Your task to perform on an android device: refresh tabs in the chrome app Image 0: 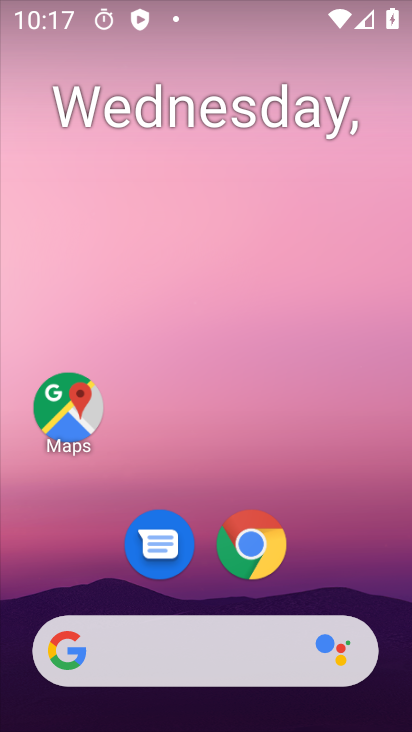
Step 0: drag from (296, 681) to (180, 37)
Your task to perform on an android device: refresh tabs in the chrome app Image 1: 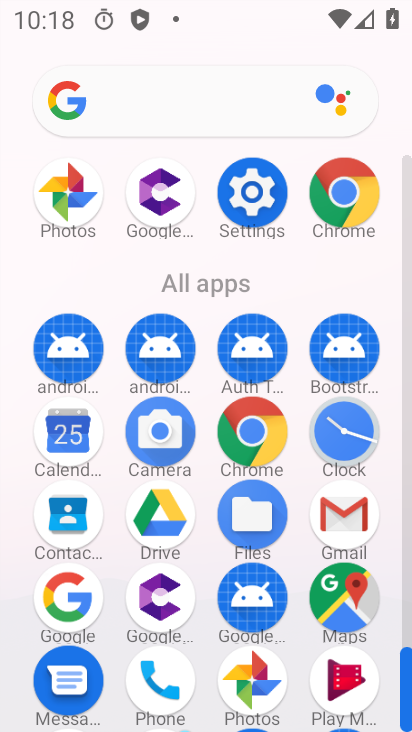
Step 1: click (351, 206)
Your task to perform on an android device: refresh tabs in the chrome app Image 2: 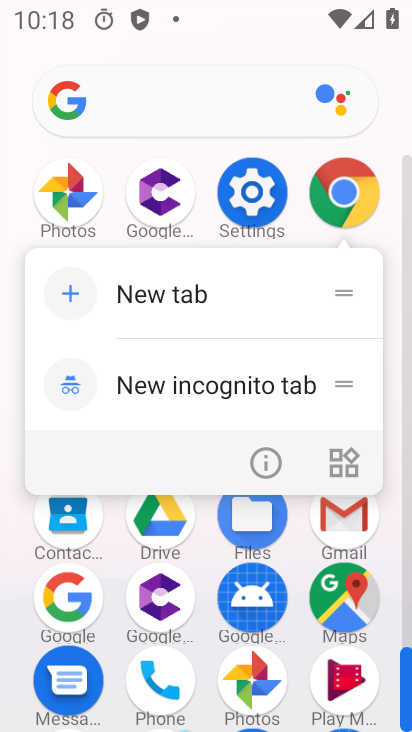
Step 2: click (344, 182)
Your task to perform on an android device: refresh tabs in the chrome app Image 3: 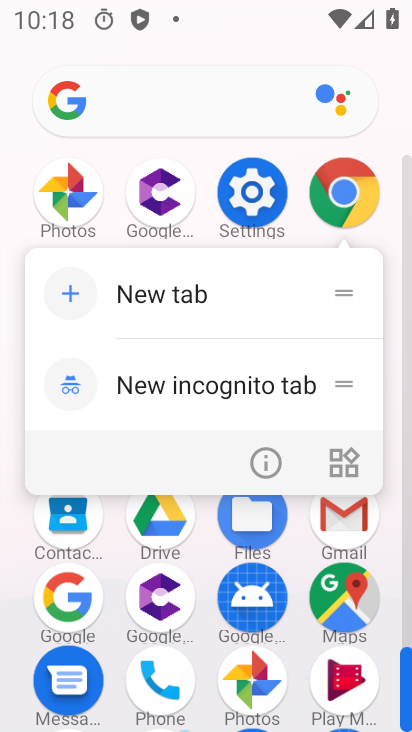
Step 3: click (344, 205)
Your task to perform on an android device: refresh tabs in the chrome app Image 4: 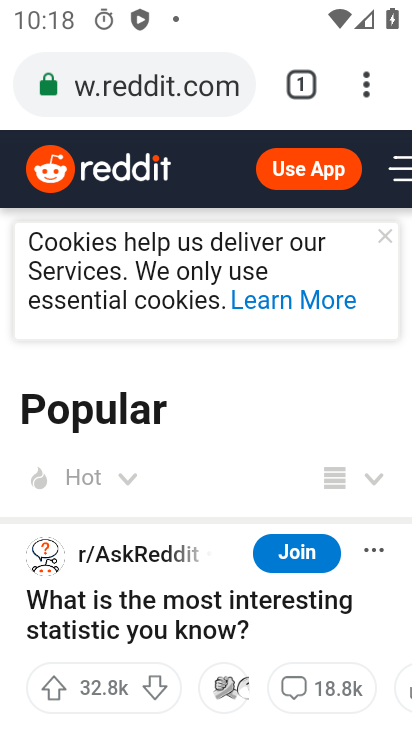
Step 4: click (378, 88)
Your task to perform on an android device: refresh tabs in the chrome app Image 5: 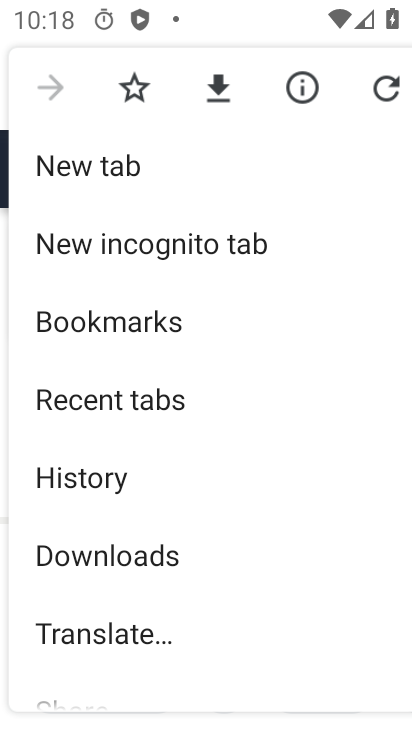
Step 5: click (380, 86)
Your task to perform on an android device: refresh tabs in the chrome app Image 6: 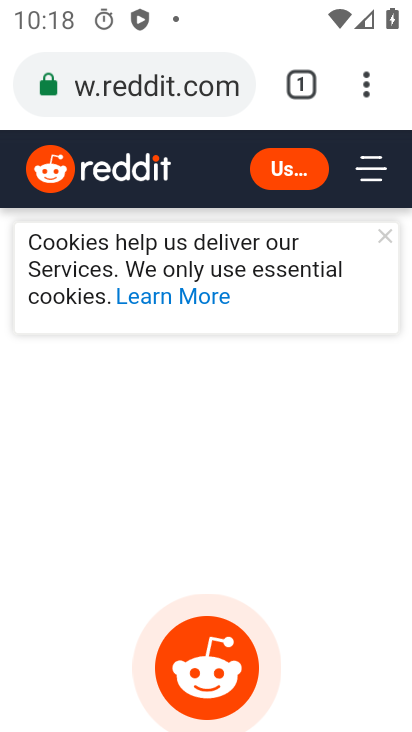
Step 6: task complete